Your task to perform on an android device: Open a new private window in the chrome app Image 0: 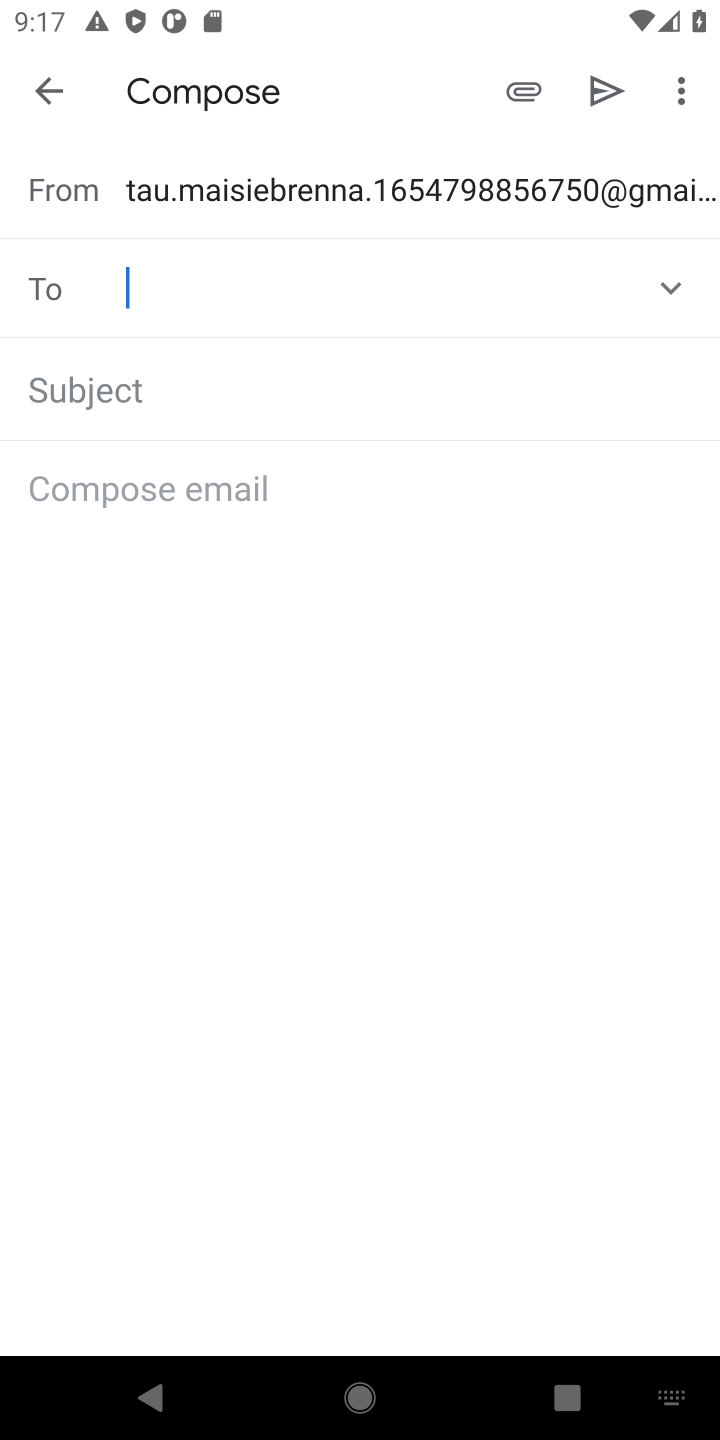
Step 0: press home button
Your task to perform on an android device: Open a new private window in the chrome app Image 1: 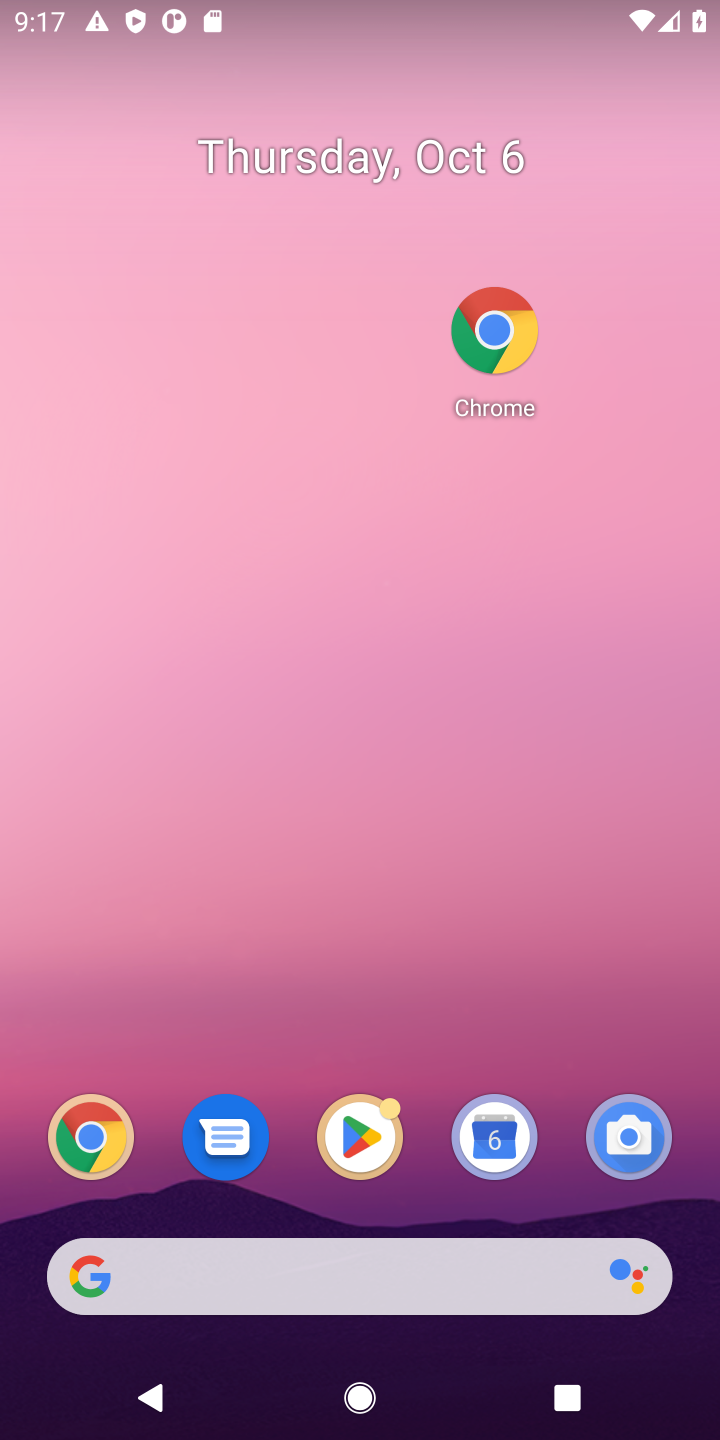
Step 1: click (498, 332)
Your task to perform on an android device: Open a new private window in the chrome app Image 2: 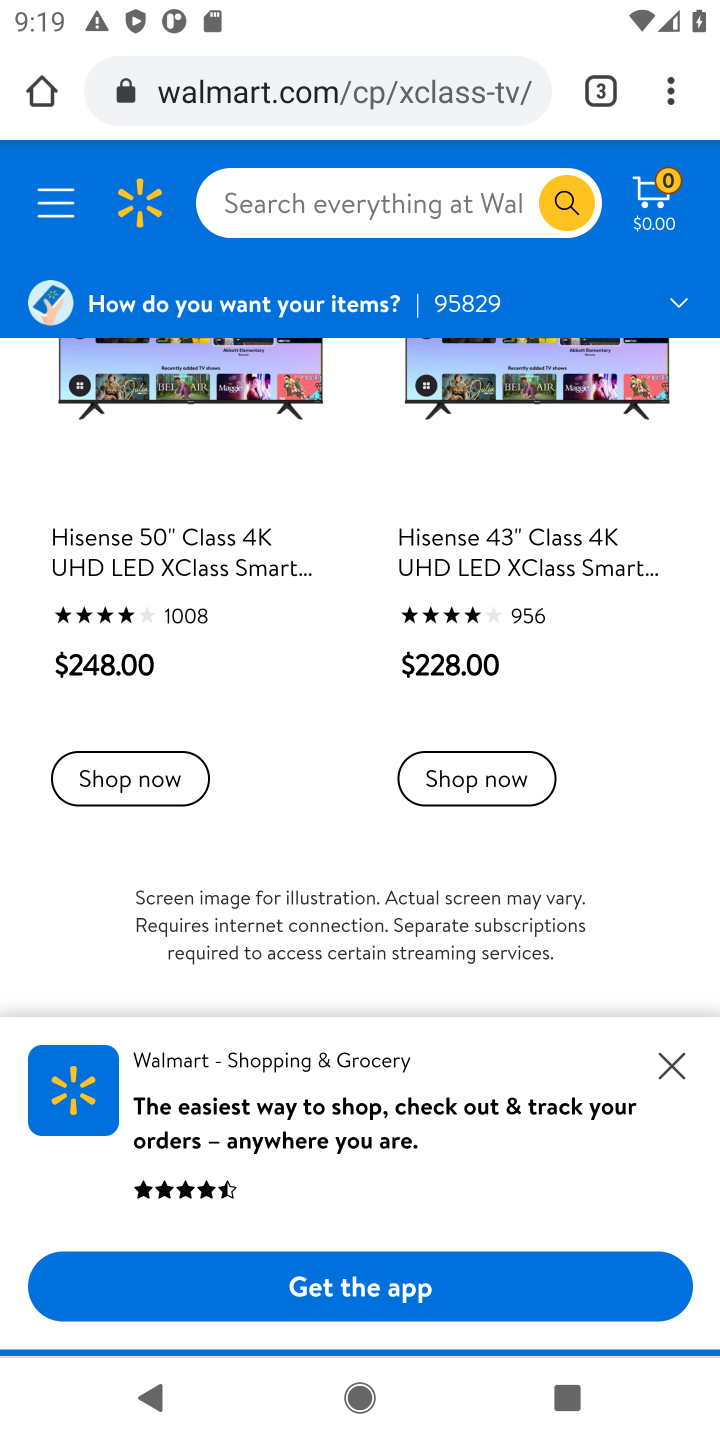
Step 2: click (598, 96)
Your task to perform on an android device: Open a new private window in the chrome app Image 3: 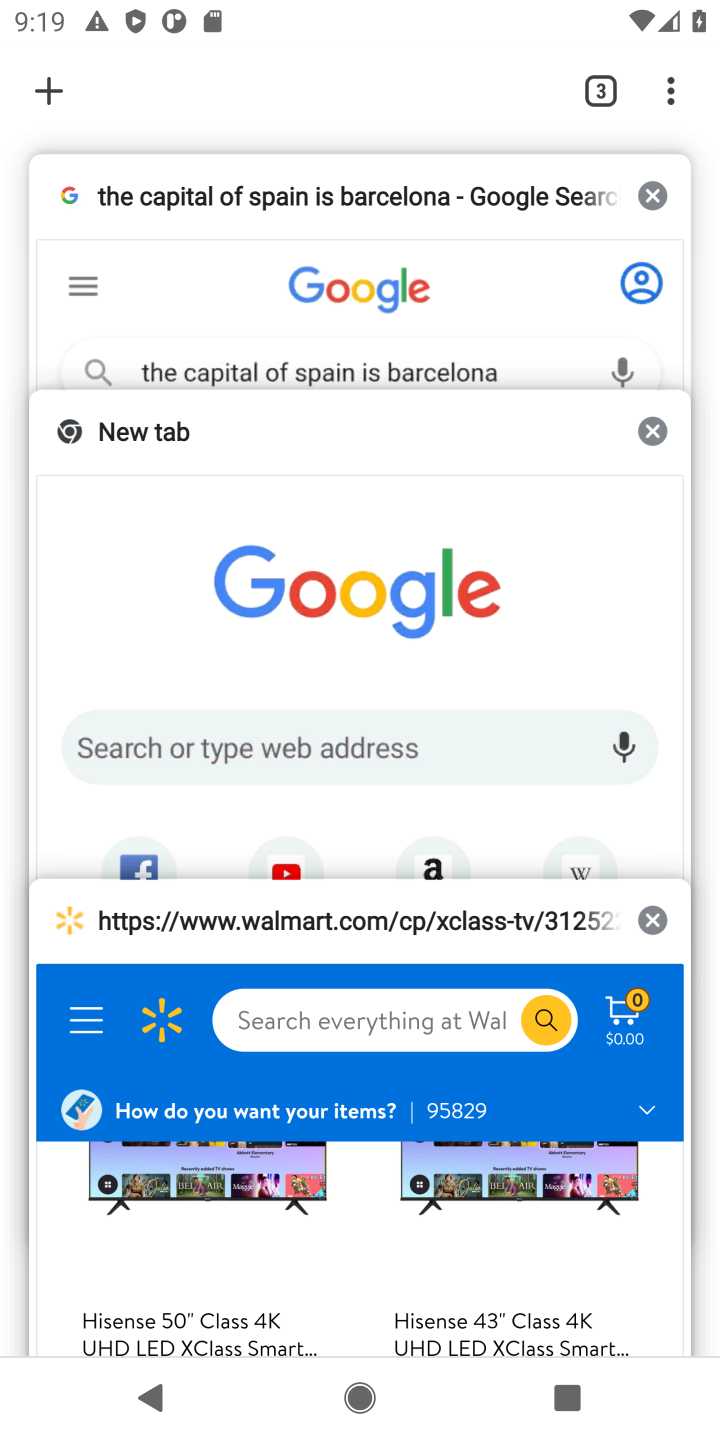
Step 3: click (56, 98)
Your task to perform on an android device: Open a new private window in the chrome app Image 4: 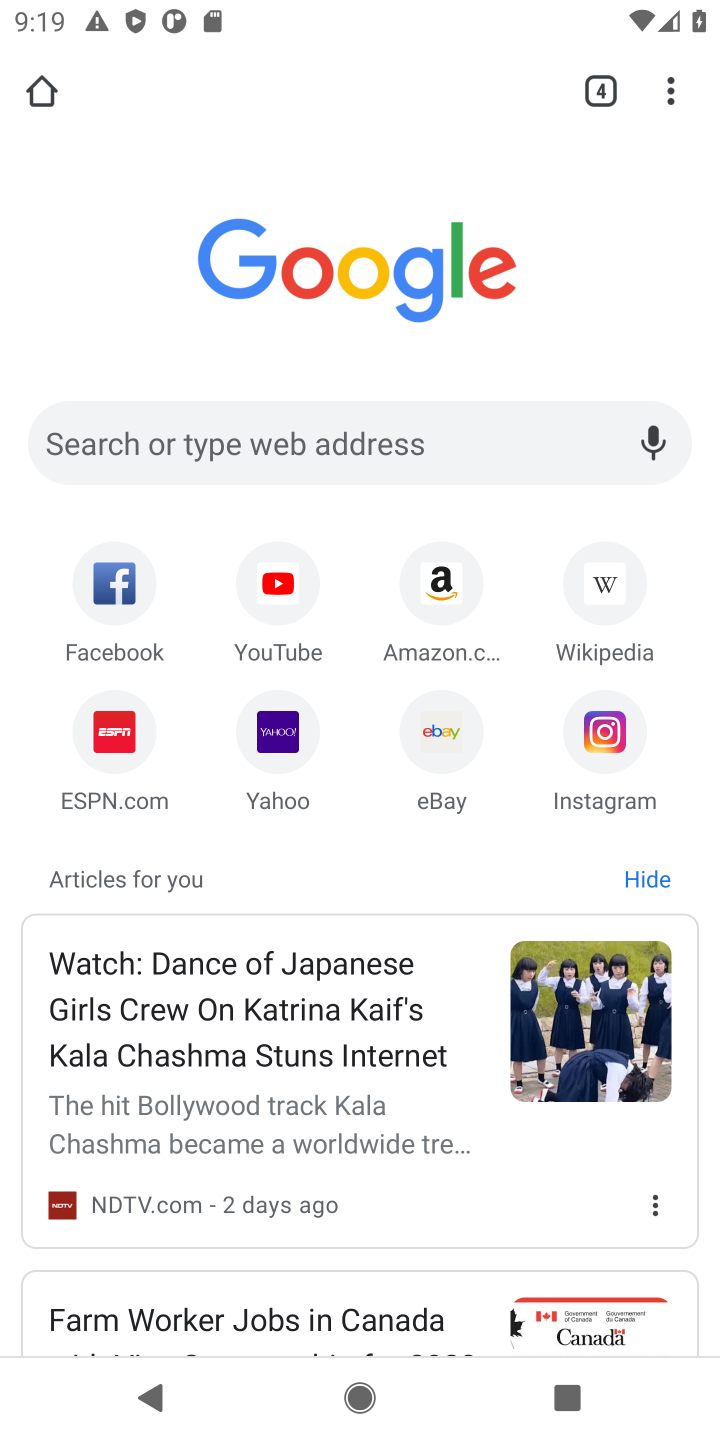
Step 4: task complete